Your task to perform on an android device: Go to Maps Image 0: 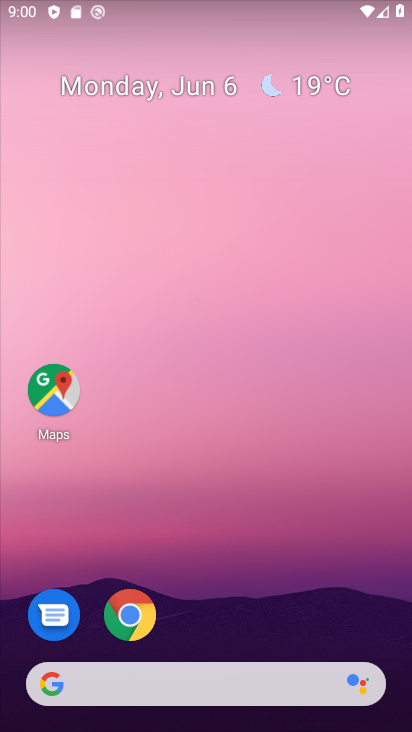
Step 0: click (62, 407)
Your task to perform on an android device: Go to Maps Image 1: 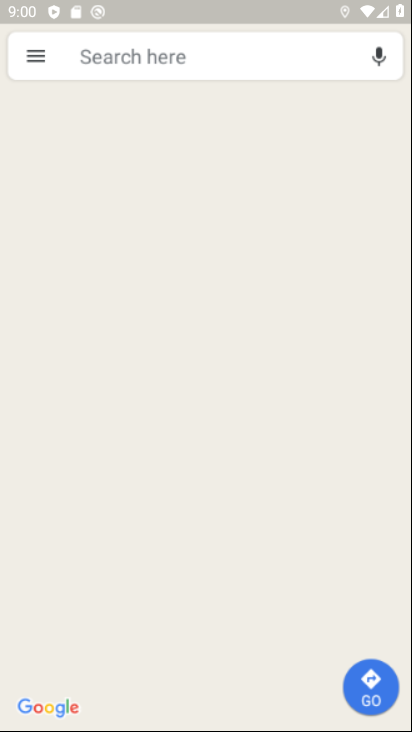
Step 1: task complete